Your task to perform on an android device: turn on data saver in the chrome app Image 0: 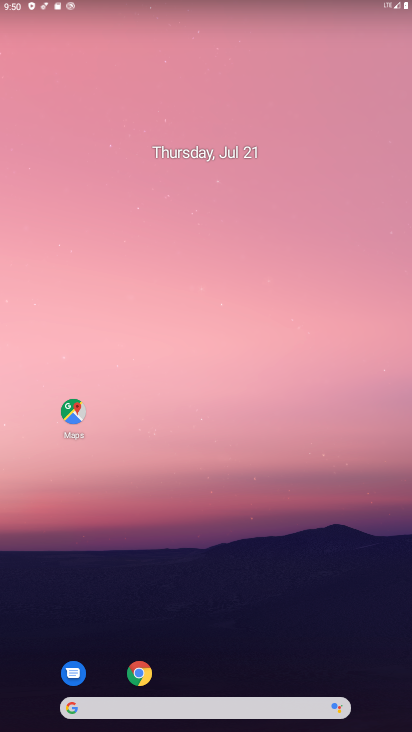
Step 0: click (139, 669)
Your task to perform on an android device: turn on data saver in the chrome app Image 1: 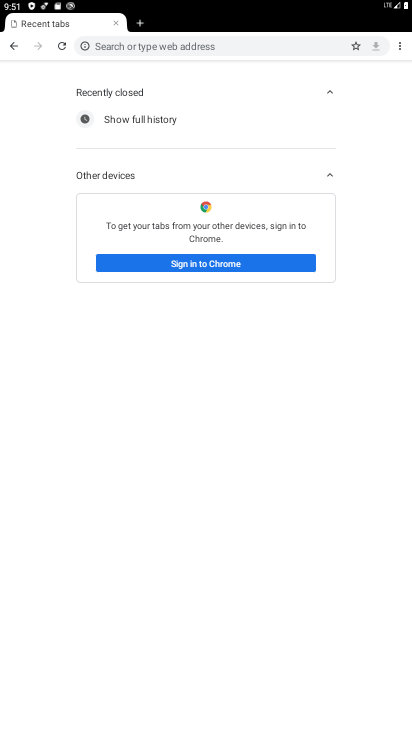
Step 1: click (398, 49)
Your task to perform on an android device: turn on data saver in the chrome app Image 2: 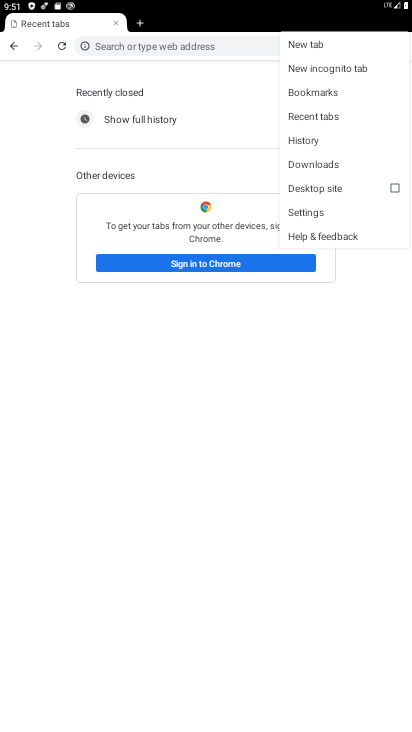
Step 2: click (303, 212)
Your task to perform on an android device: turn on data saver in the chrome app Image 3: 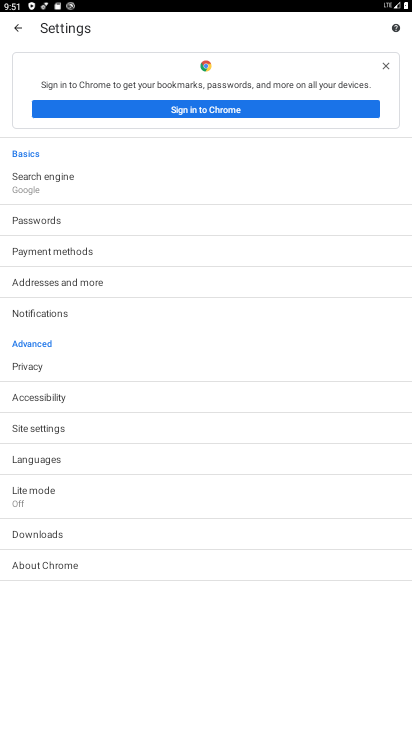
Step 3: click (31, 492)
Your task to perform on an android device: turn on data saver in the chrome app Image 4: 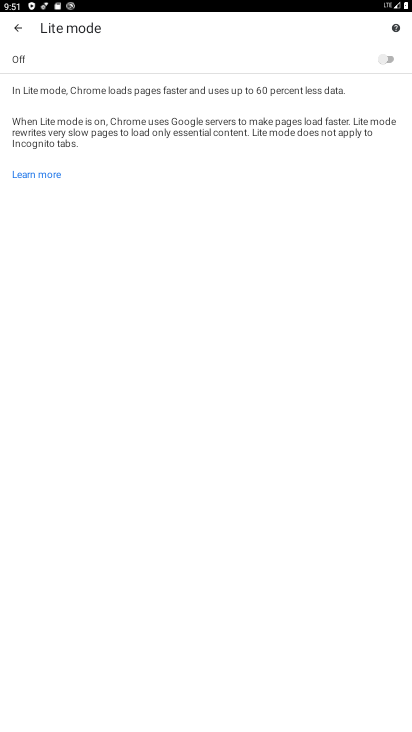
Step 4: click (389, 54)
Your task to perform on an android device: turn on data saver in the chrome app Image 5: 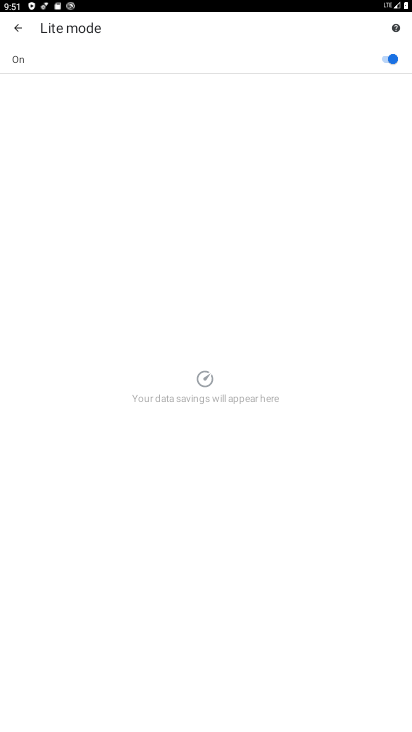
Step 5: task complete